Your task to perform on an android device: Open privacy settings Image 0: 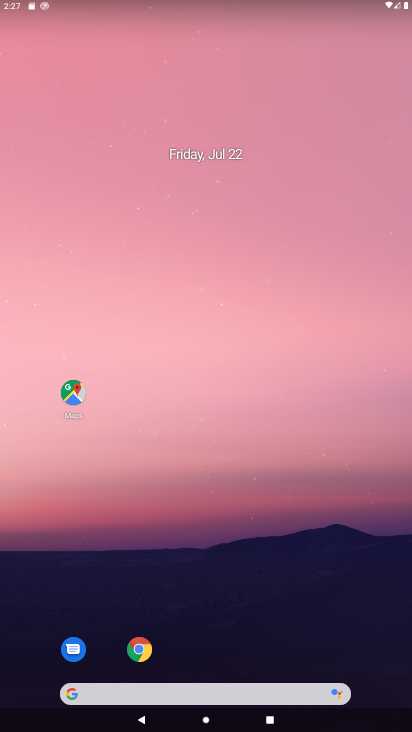
Step 0: drag from (230, 725) to (218, 244)
Your task to perform on an android device: Open privacy settings Image 1: 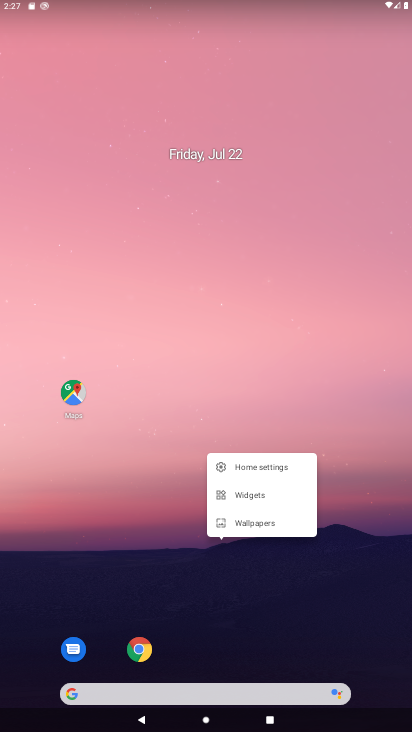
Step 1: click (243, 354)
Your task to perform on an android device: Open privacy settings Image 2: 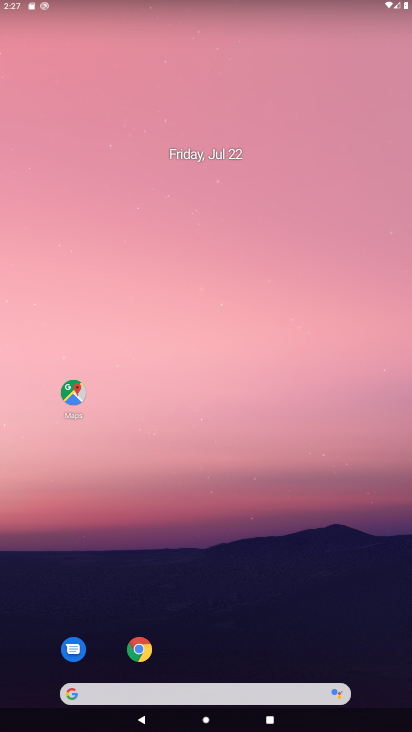
Step 2: click (276, 353)
Your task to perform on an android device: Open privacy settings Image 3: 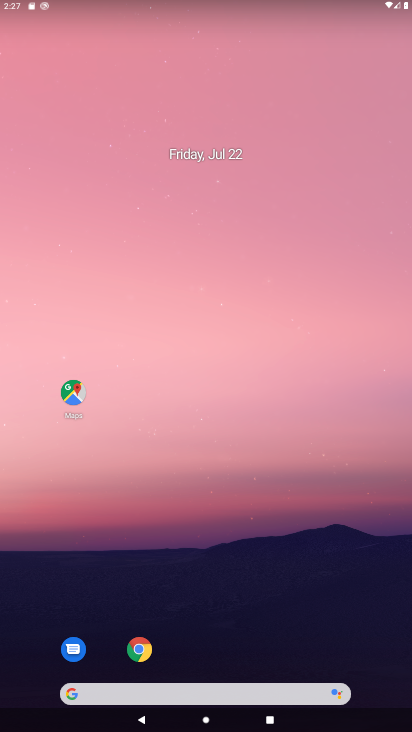
Step 3: drag from (222, 711) to (212, 147)
Your task to perform on an android device: Open privacy settings Image 4: 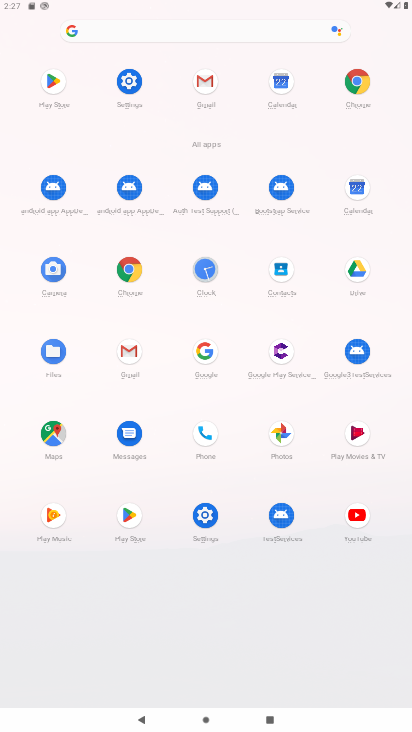
Step 4: click (132, 78)
Your task to perform on an android device: Open privacy settings Image 5: 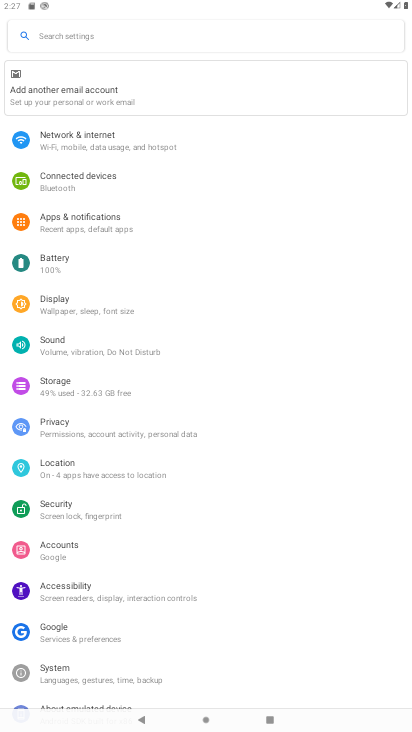
Step 5: click (53, 427)
Your task to perform on an android device: Open privacy settings Image 6: 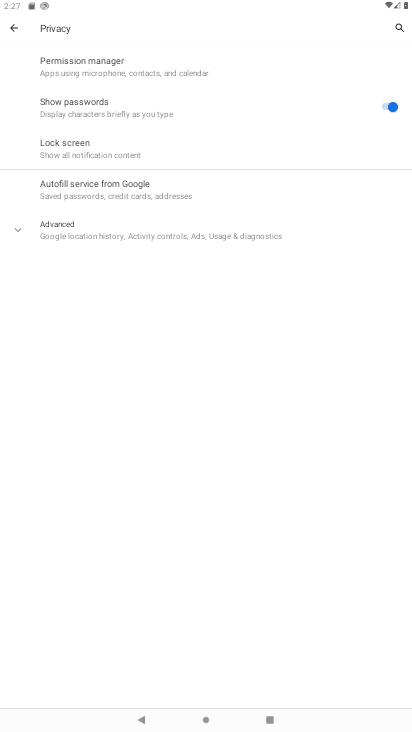
Step 6: task complete